Your task to perform on an android device: star an email in the gmail app Image 0: 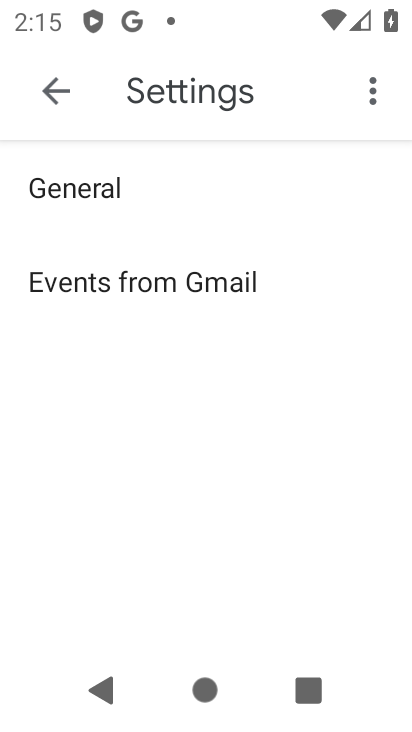
Step 0: press home button
Your task to perform on an android device: star an email in the gmail app Image 1: 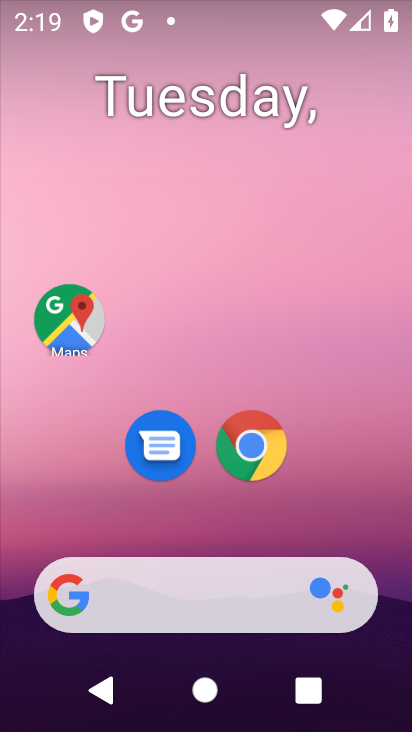
Step 1: press home button
Your task to perform on an android device: star an email in the gmail app Image 2: 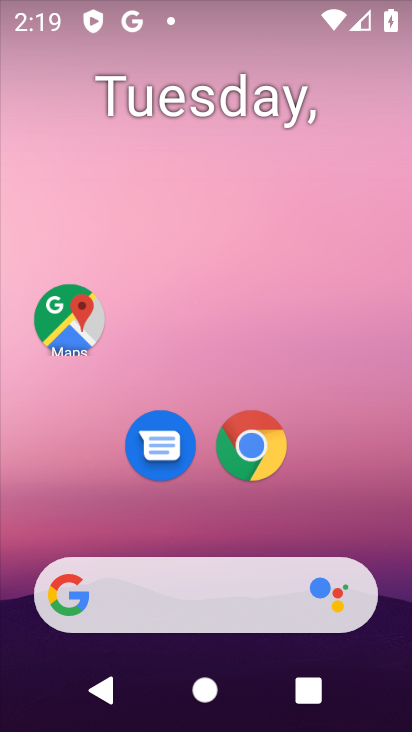
Step 2: drag from (256, 550) to (328, 17)
Your task to perform on an android device: star an email in the gmail app Image 3: 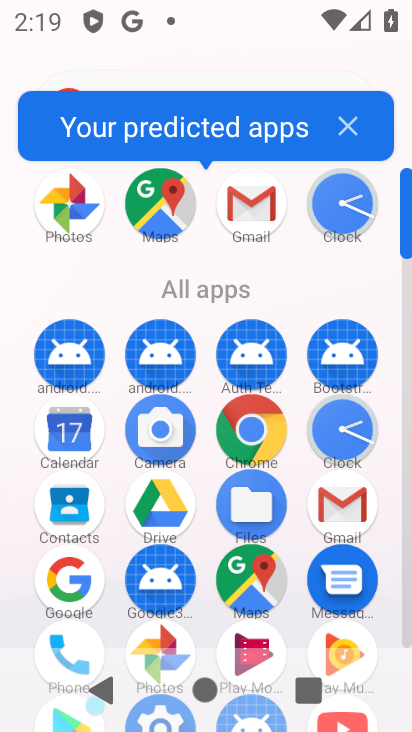
Step 3: click (238, 216)
Your task to perform on an android device: star an email in the gmail app Image 4: 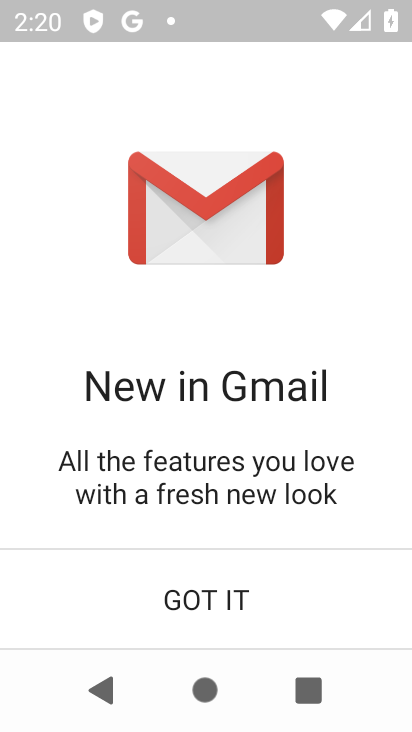
Step 4: click (273, 598)
Your task to perform on an android device: star an email in the gmail app Image 5: 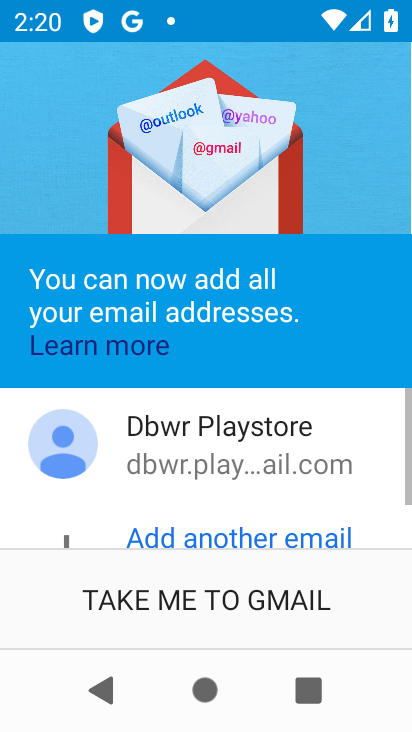
Step 5: click (248, 630)
Your task to perform on an android device: star an email in the gmail app Image 6: 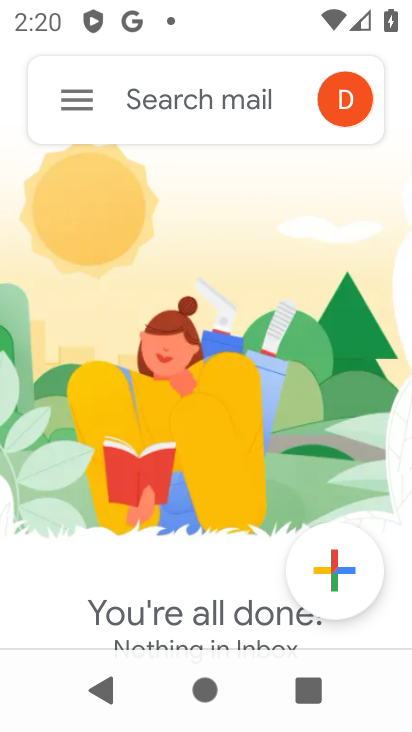
Step 6: task complete